Your task to perform on an android device: Go to Google Image 0: 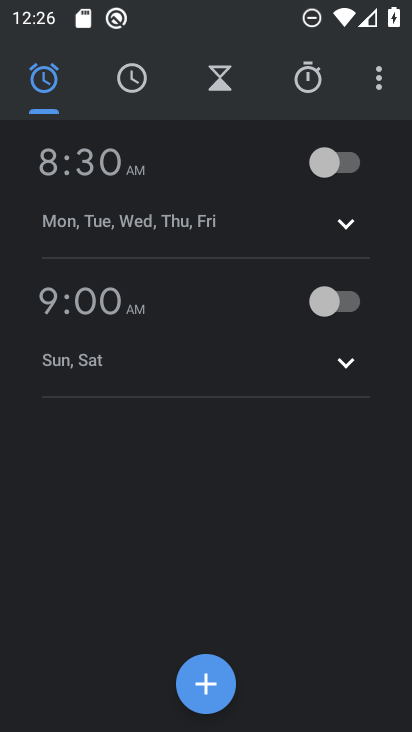
Step 0: press home button
Your task to perform on an android device: Go to Google Image 1: 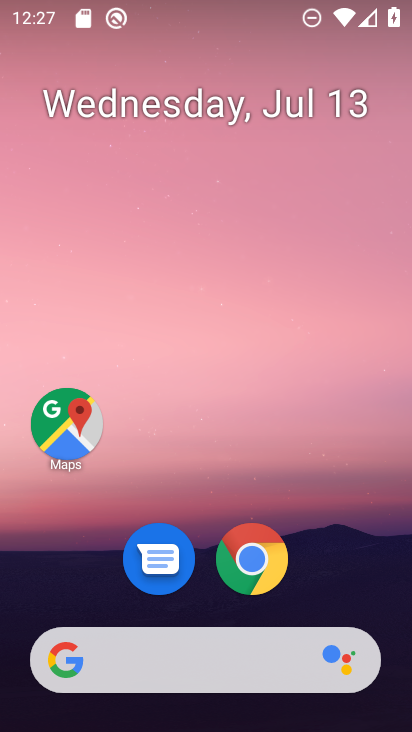
Step 1: drag from (293, 466) to (238, 17)
Your task to perform on an android device: Go to Google Image 2: 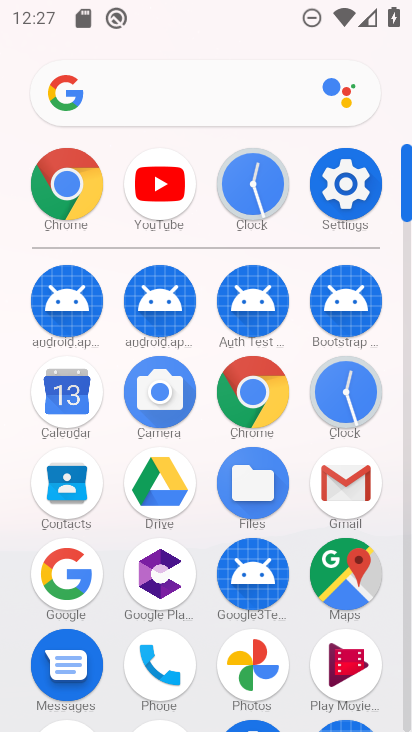
Step 2: drag from (225, 597) to (245, 330)
Your task to perform on an android device: Go to Google Image 3: 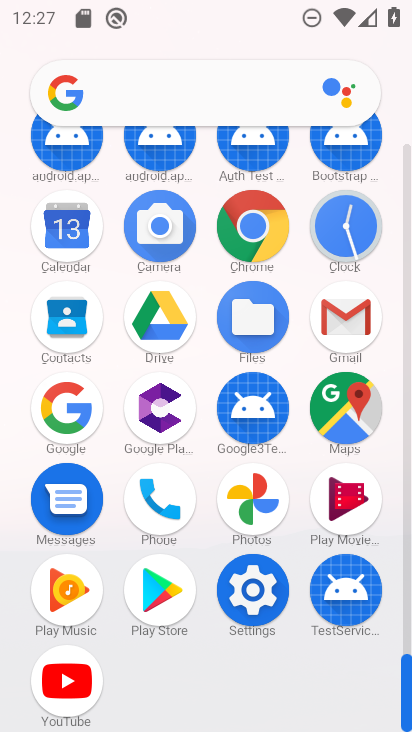
Step 3: click (81, 427)
Your task to perform on an android device: Go to Google Image 4: 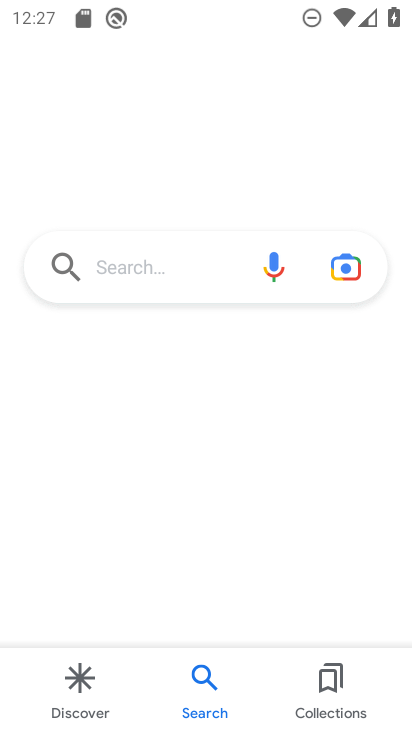
Step 4: task complete